Your task to perform on an android device: Search for vegetarian restaurants on Maps Image 0: 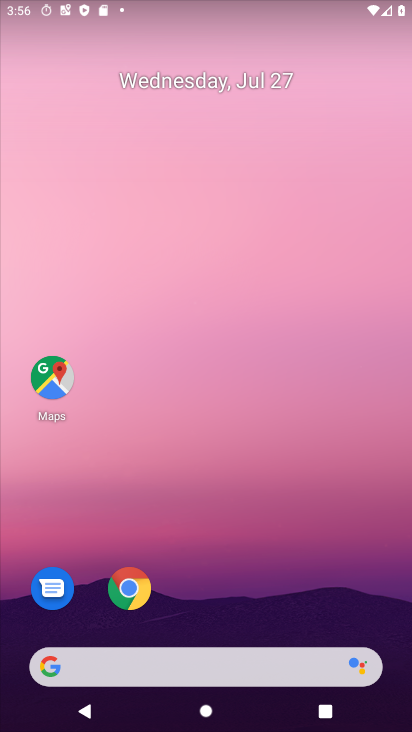
Step 0: press home button
Your task to perform on an android device: Search for vegetarian restaurants on Maps Image 1: 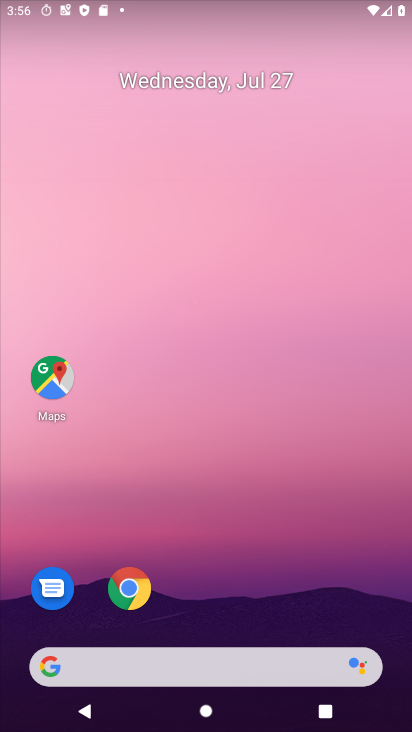
Step 1: drag from (204, 611) to (81, 38)
Your task to perform on an android device: Search for vegetarian restaurants on Maps Image 2: 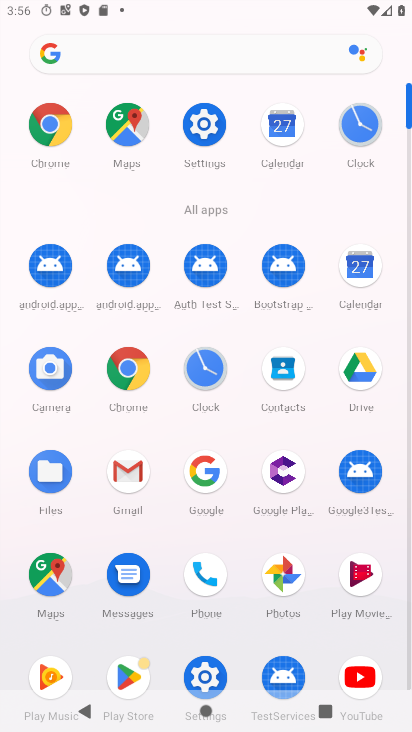
Step 2: click (120, 115)
Your task to perform on an android device: Search for vegetarian restaurants on Maps Image 3: 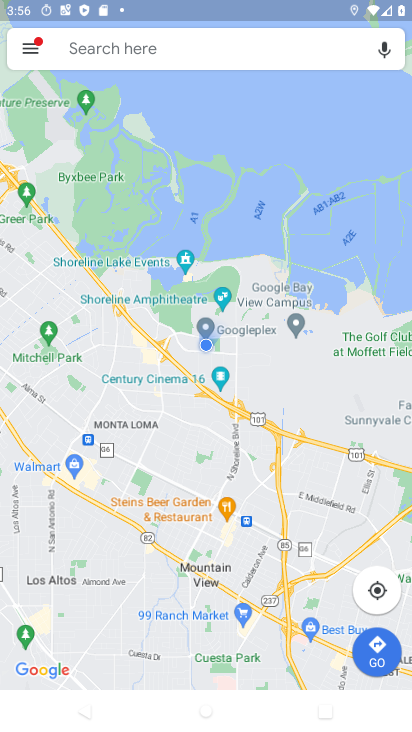
Step 3: click (147, 41)
Your task to perform on an android device: Search for vegetarian restaurants on Maps Image 4: 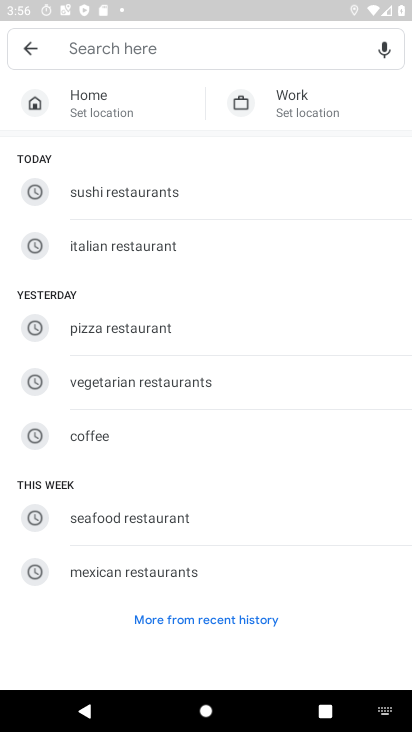
Step 4: click (139, 376)
Your task to perform on an android device: Search for vegetarian restaurants on Maps Image 5: 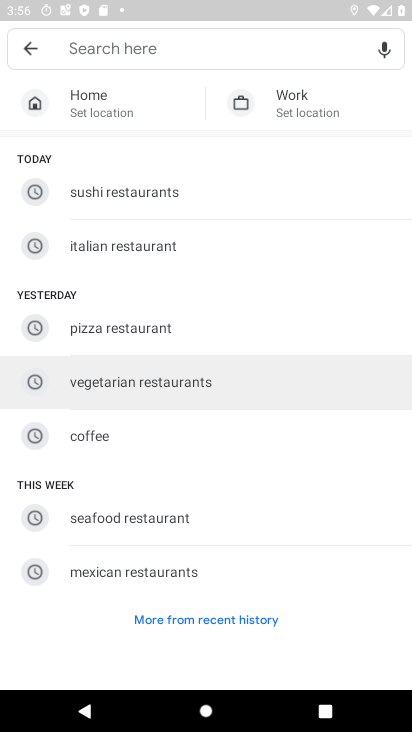
Step 5: click (139, 377)
Your task to perform on an android device: Search for vegetarian restaurants on Maps Image 6: 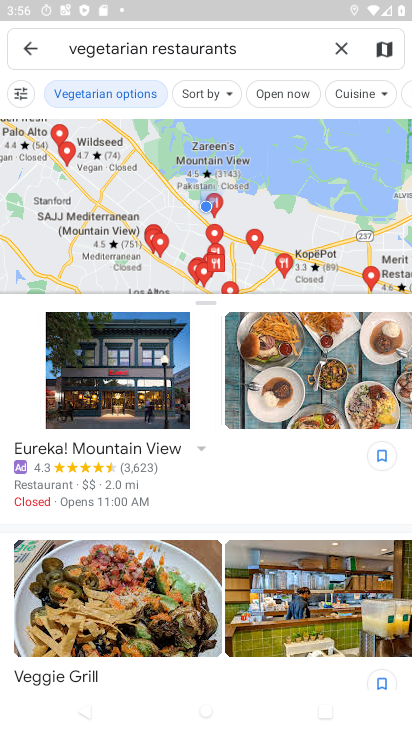
Step 6: task complete